Your task to perform on an android device: Add razer deathadder to the cart on bestbuy.com Image 0: 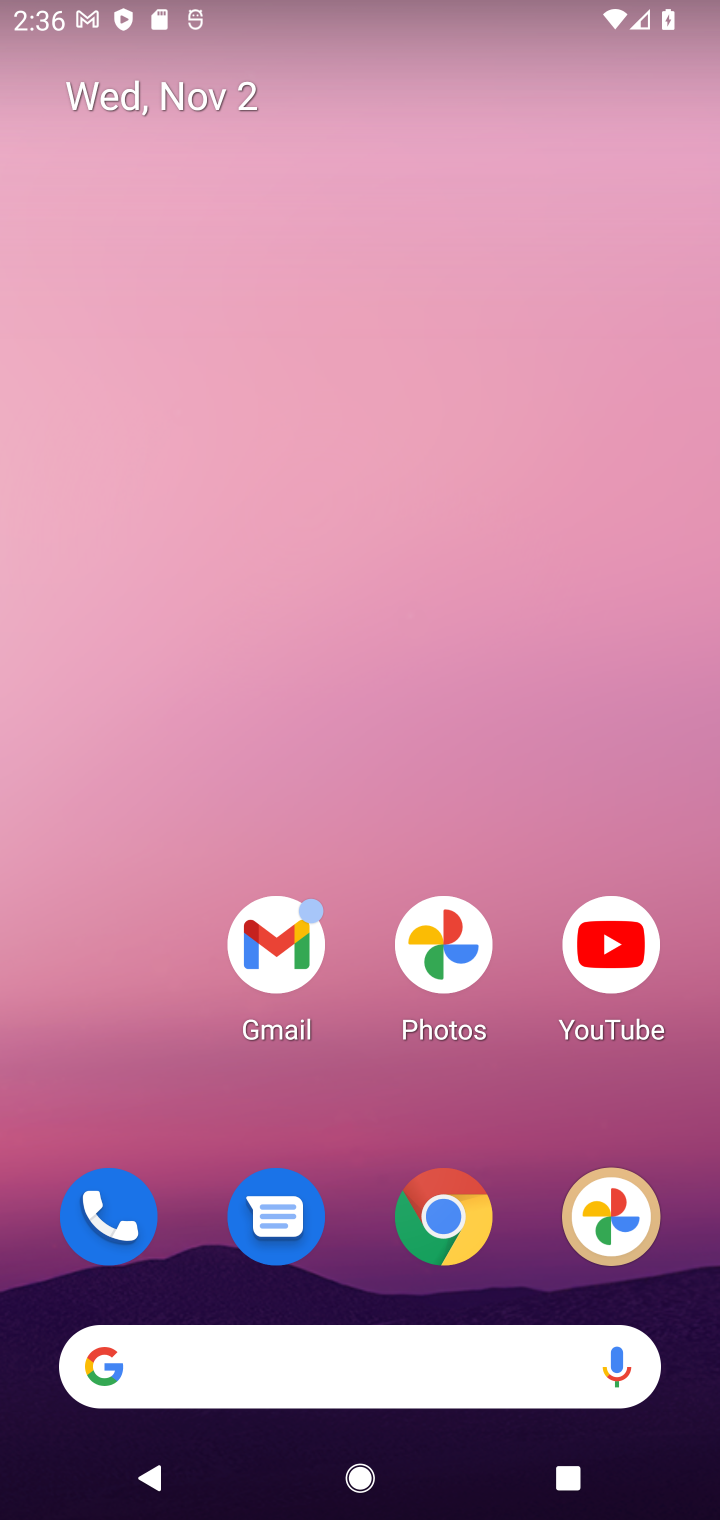
Step 0: click (448, 1241)
Your task to perform on an android device: Add razer deathadder to the cart on bestbuy.com Image 1: 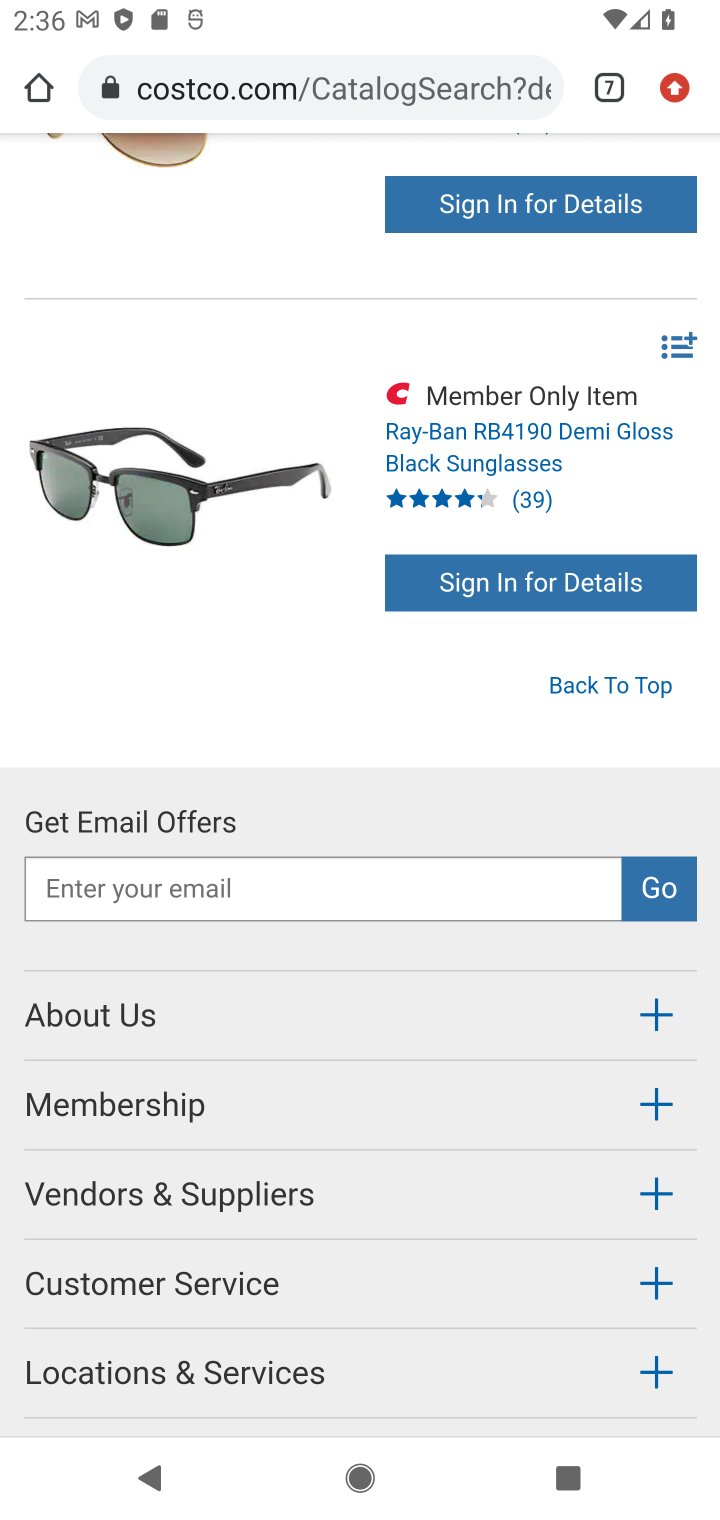
Step 1: click (609, 85)
Your task to perform on an android device: Add razer deathadder to the cart on bestbuy.com Image 2: 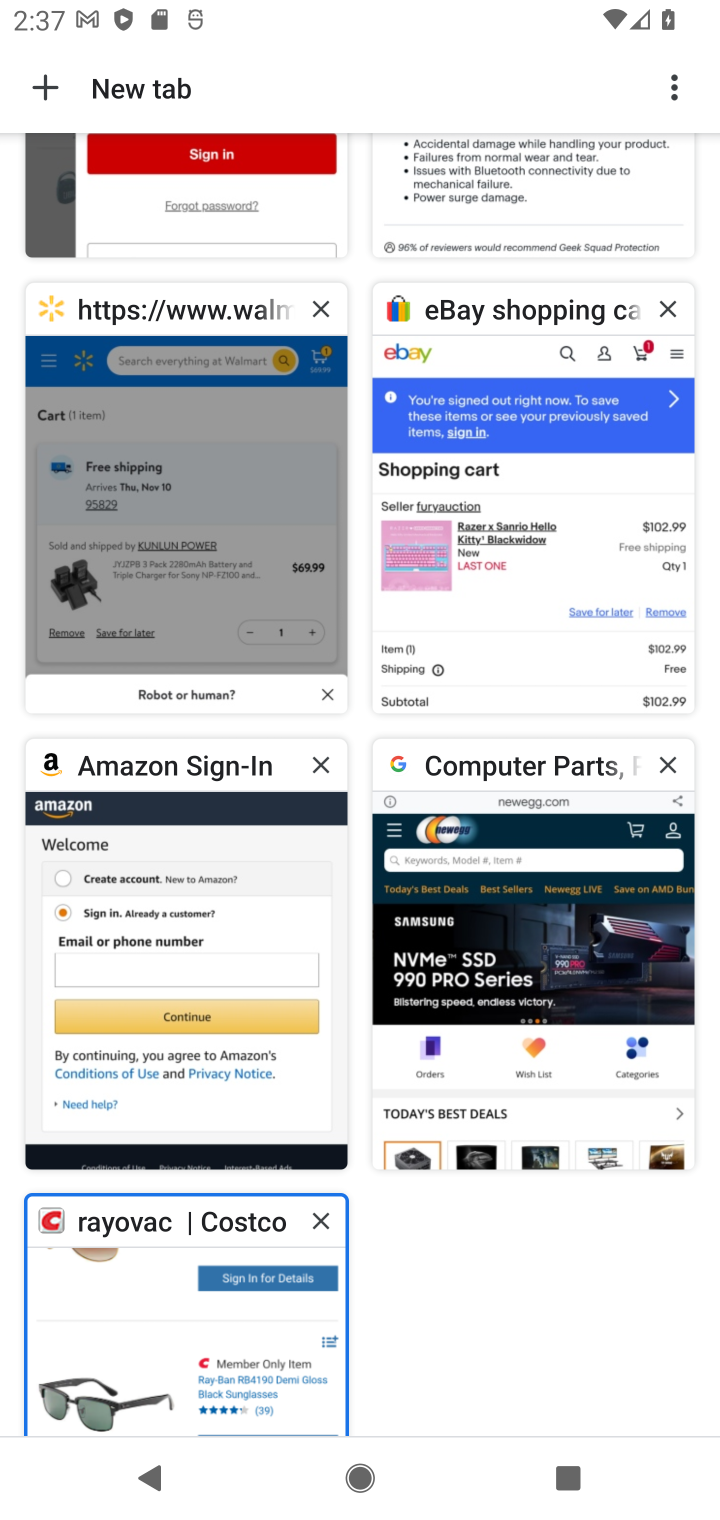
Step 2: click (477, 166)
Your task to perform on an android device: Add razer deathadder to the cart on bestbuy.com Image 3: 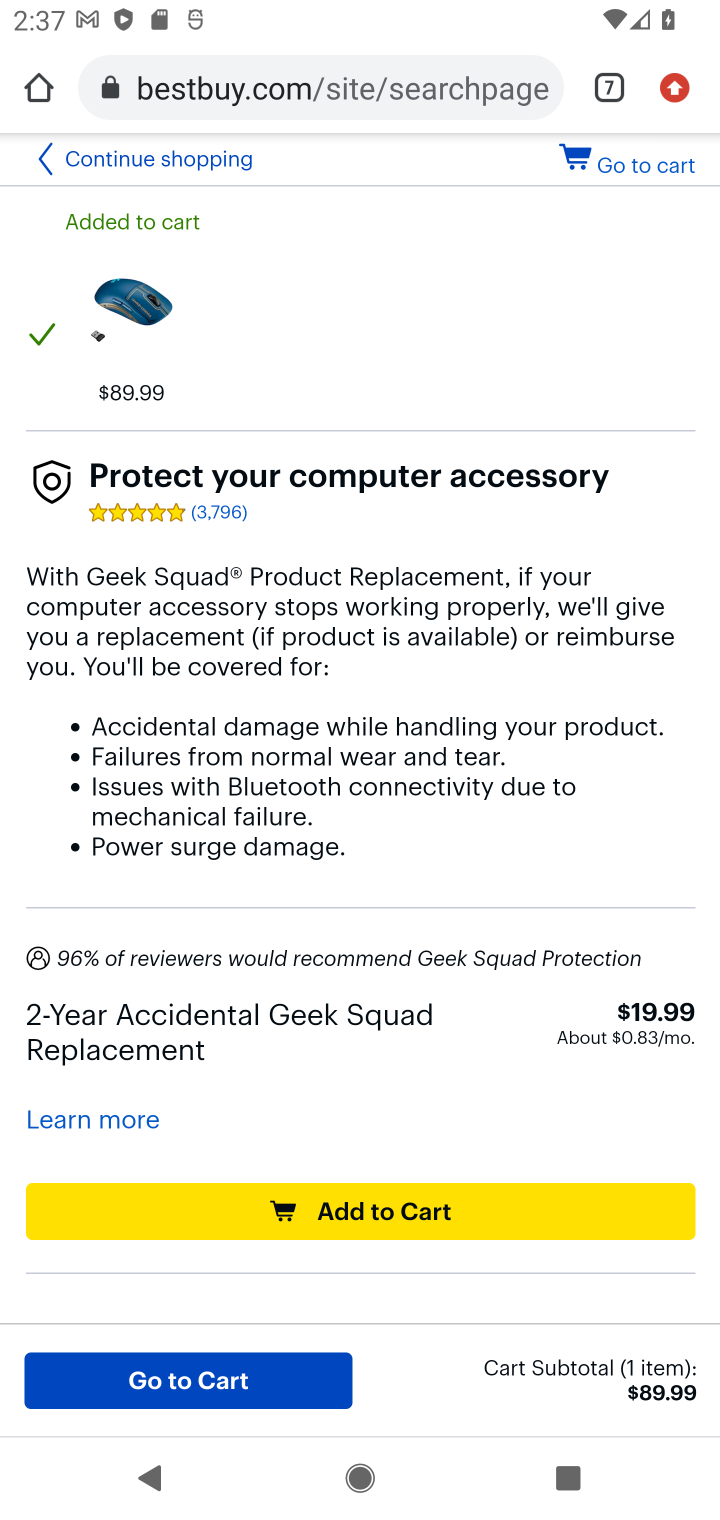
Step 3: click (205, 160)
Your task to perform on an android device: Add razer deathadder to the cart on bestbuy.com Image 4: 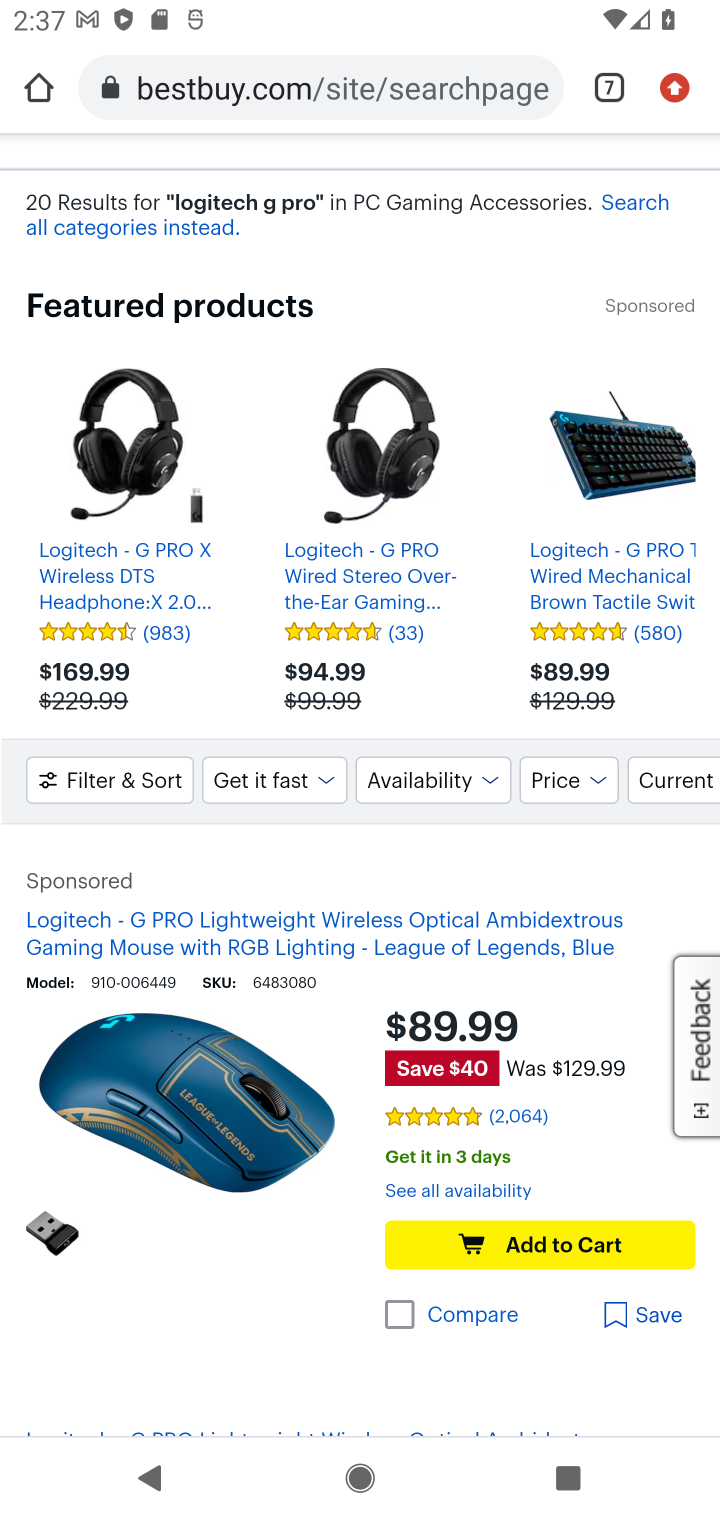
Step 4: drag from (358, 258) to (302, 859)
Your task to perform on an android device: Add razer deathadder to the cart on bestbuy.com Image 5: 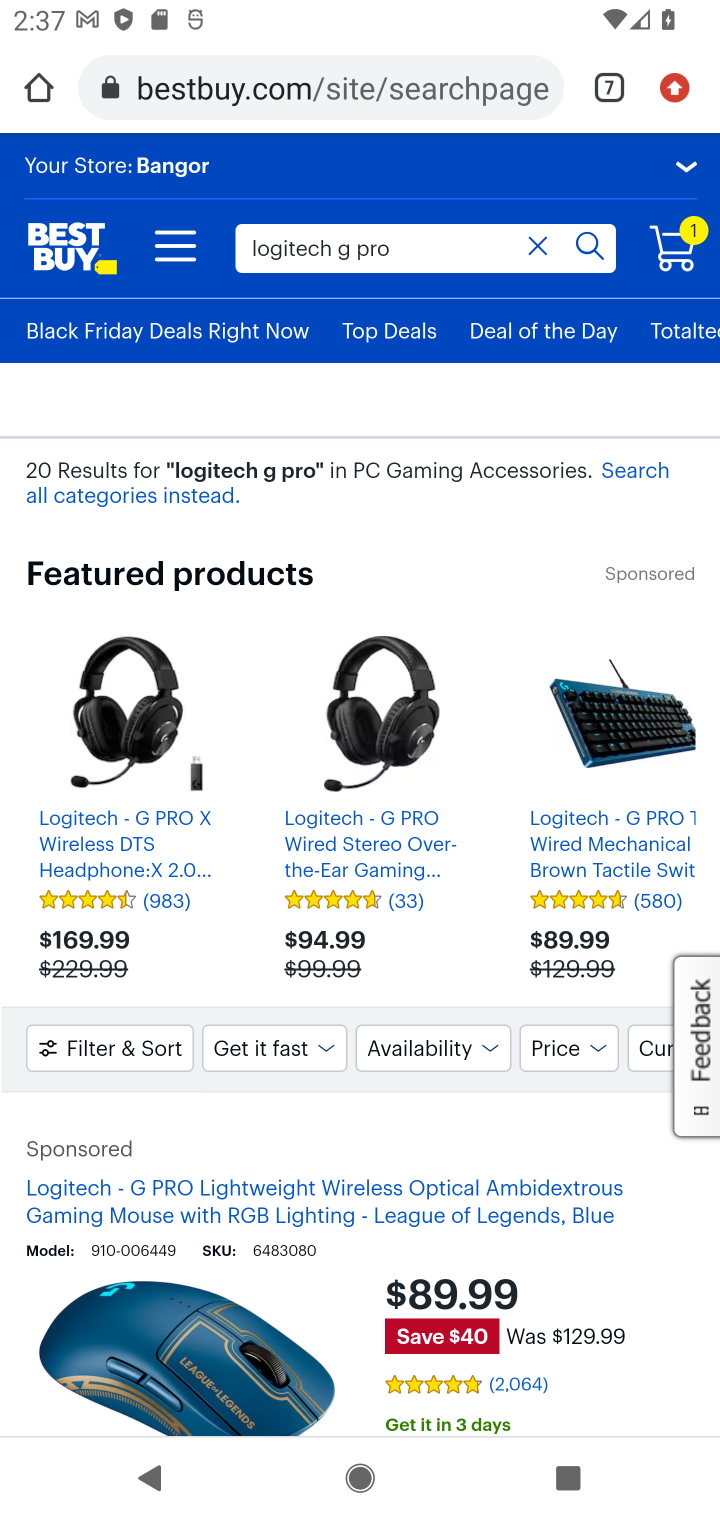
Step 5: click (539, 246)
Your task to perform on an android device: Add razer deathadder to the cart on bestbuy.com Image 6: 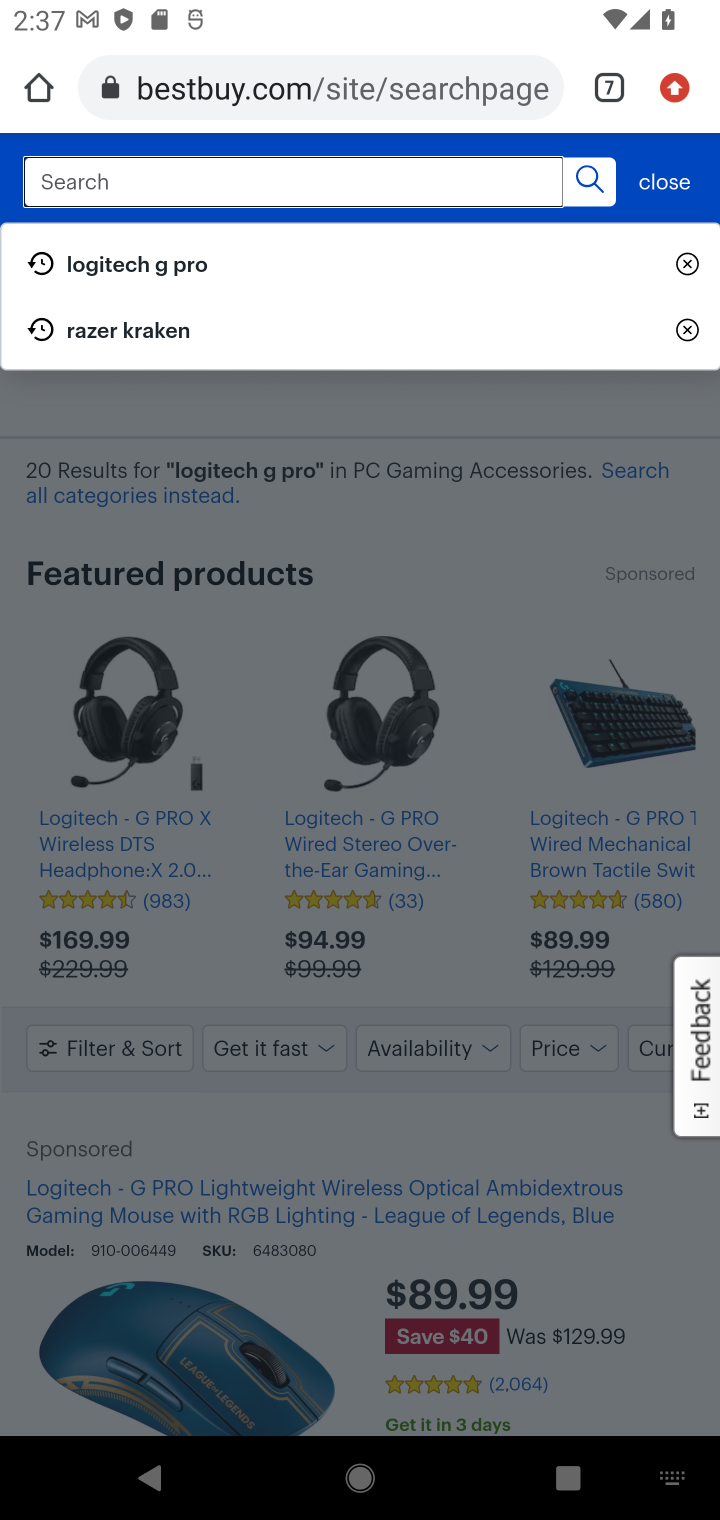
Step 6: type "razer deathadder"
Your task to perform on an android device: Add razer deathadder to the cart on bestbuy.com Image 7: 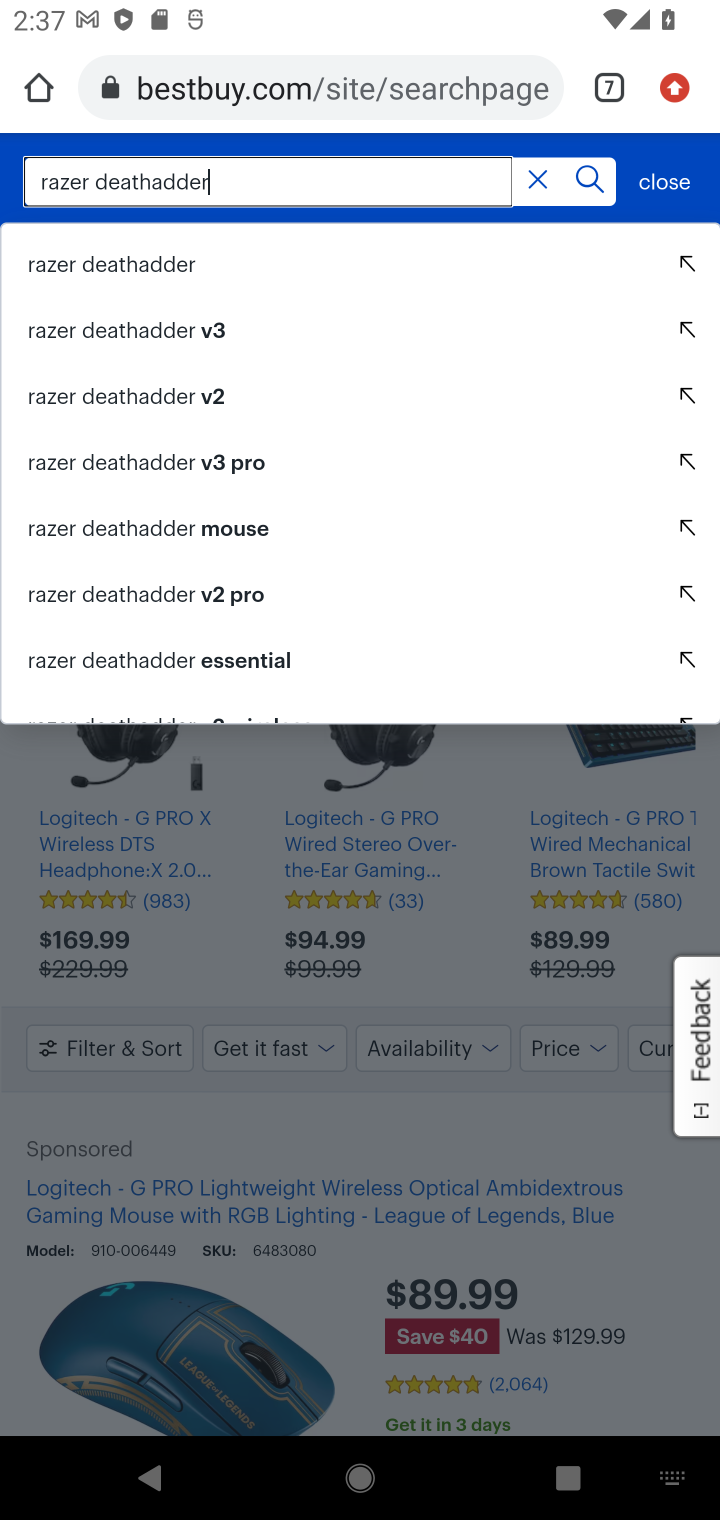
Step 7: click (164, 265)
Your task to perform on an android device: Add razer deathadder to the cart on bestbuy.com Image 8: 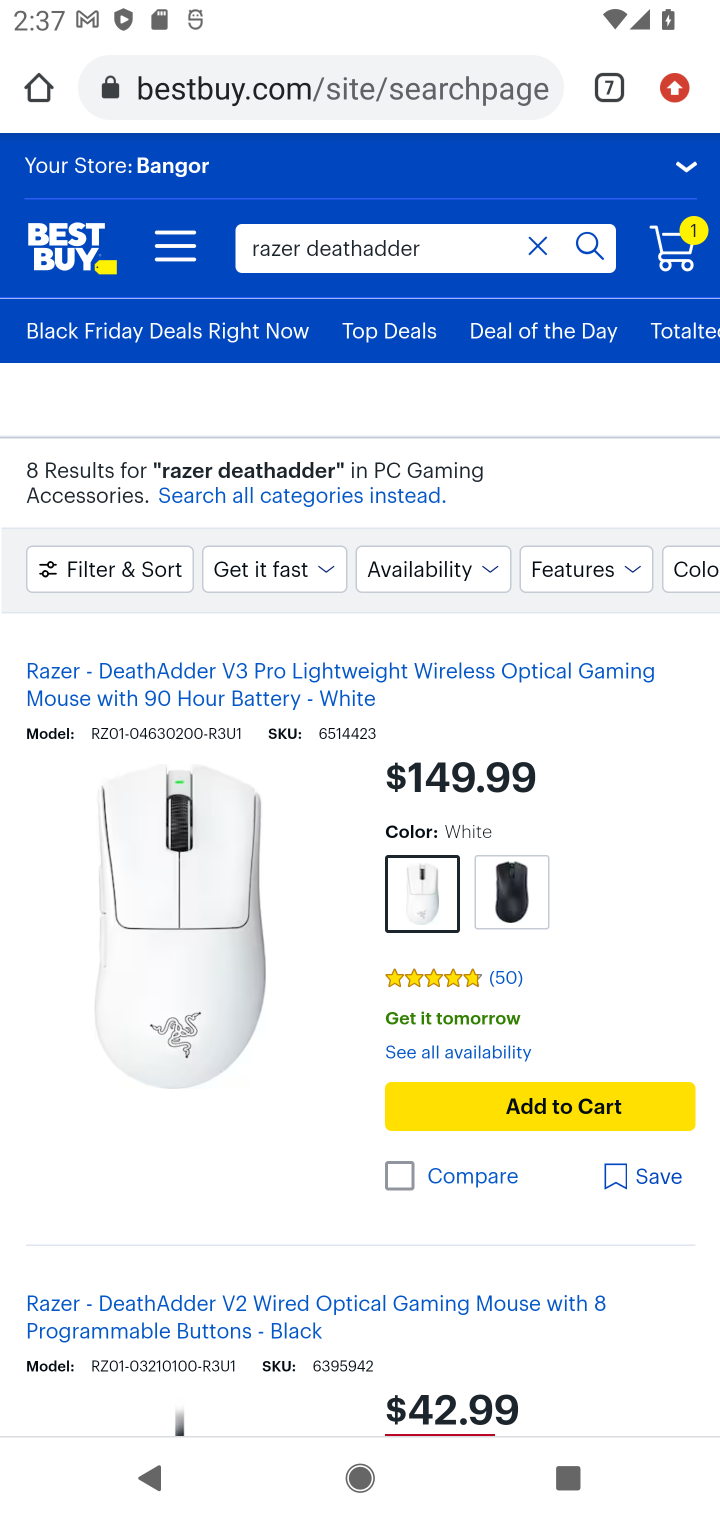
Step 8: click (499, 1103)
Your task to perform on an android device: Add razer deathadder to the cart on bestbuy.com Image 9: 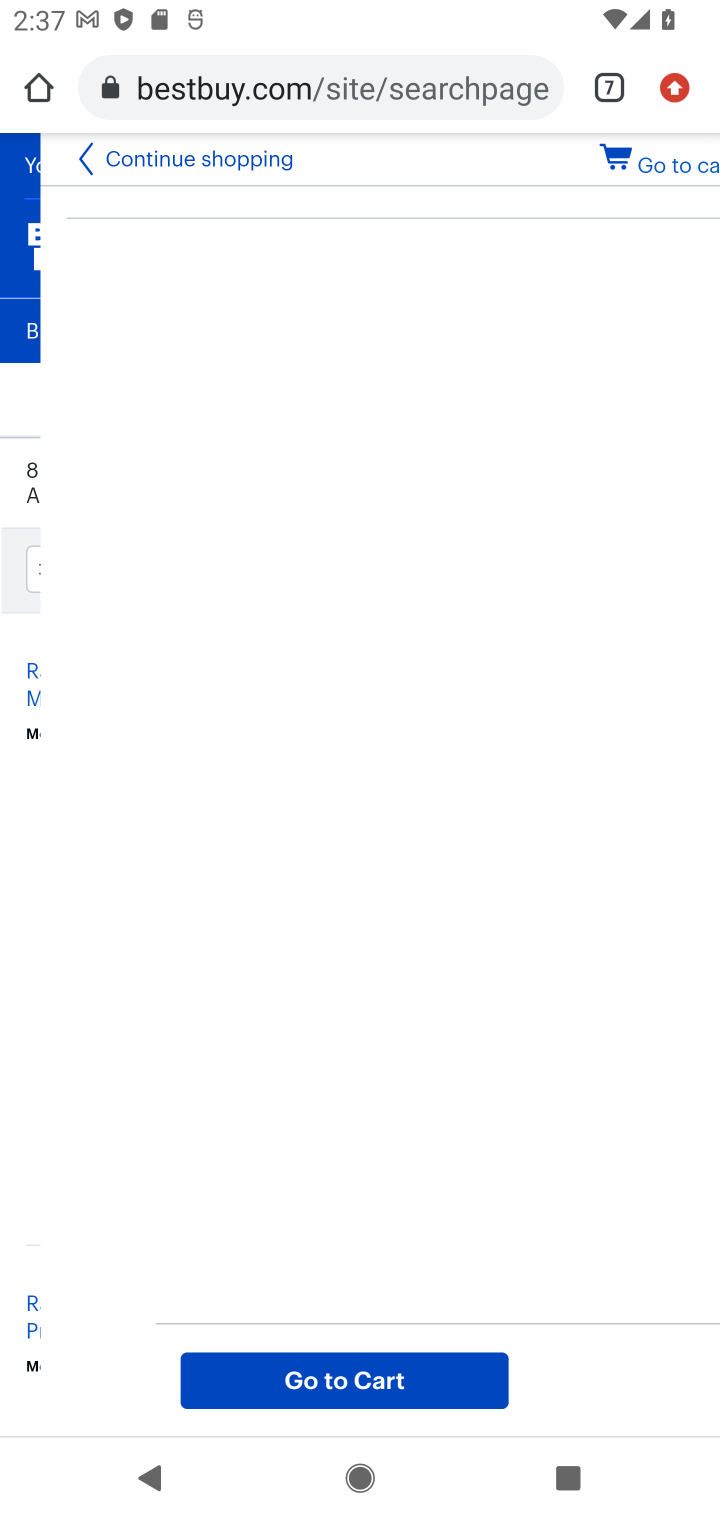
Step 9: task complete